Your task to perform on an android device: toggle data saver in the chrome app Image 0: 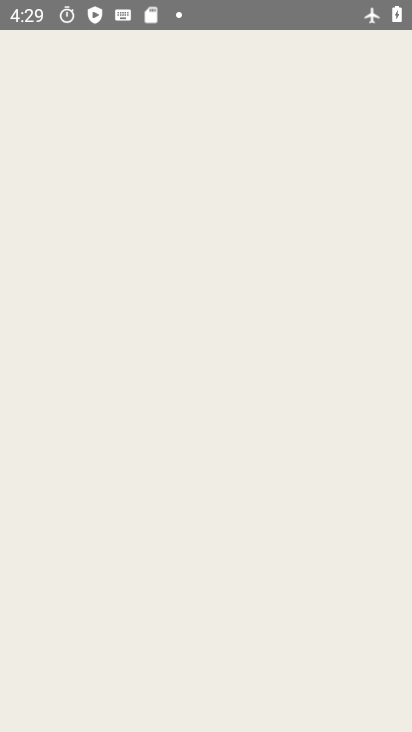
Step 0: press home button
Your task to perform on an android device: toggle data saver in the chrome app Image 1: 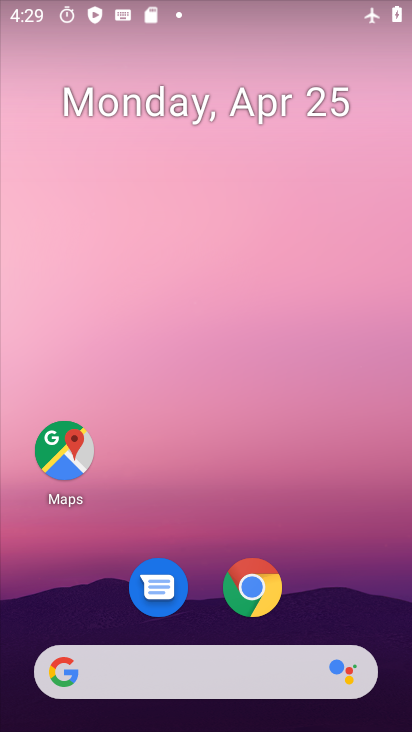
Step 1: drag from (323, 443) to (293, 147)
Your task to perform on an android device: toggle data saver in the chrome app Image 2: 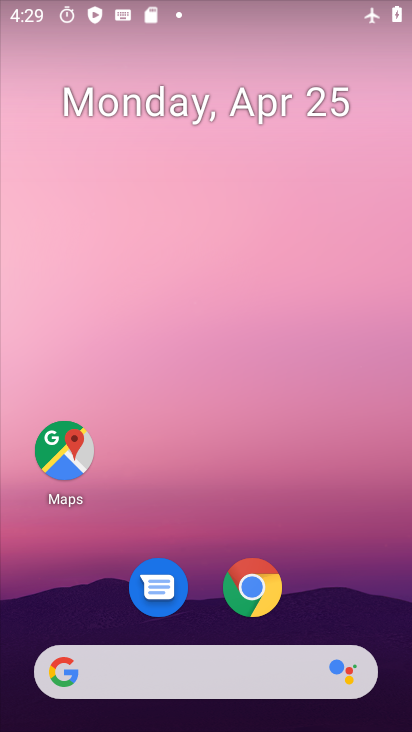
Step 2: drag from (340, 397) to (364, 155)
Your task to perform on an android device: toggle data saver in the chrome app Image 3: 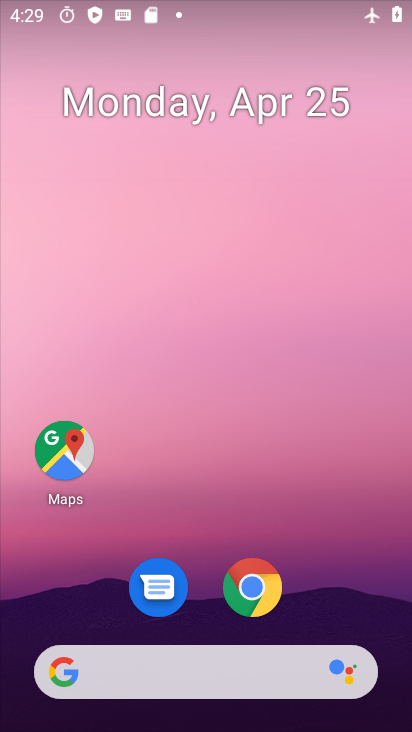
Step 3: drag from (353, 582) to (357, 106)
Your task to perform on an android device: toggle data saver in the chrome app Image 4: 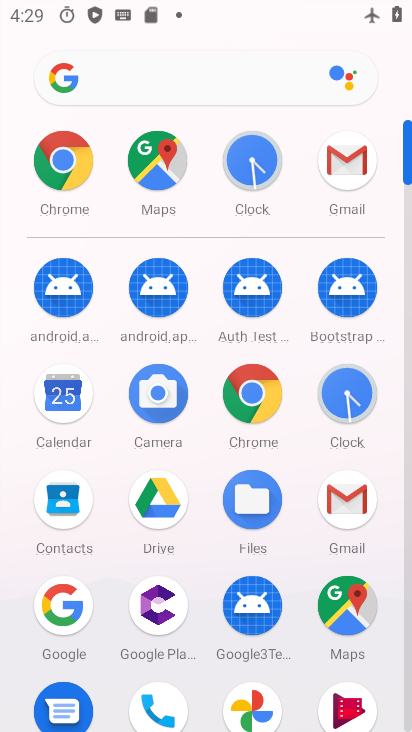
Step 4: click (255, 407)
Your task to perform on an android device: toggle data saver in the chrome app Image 5: 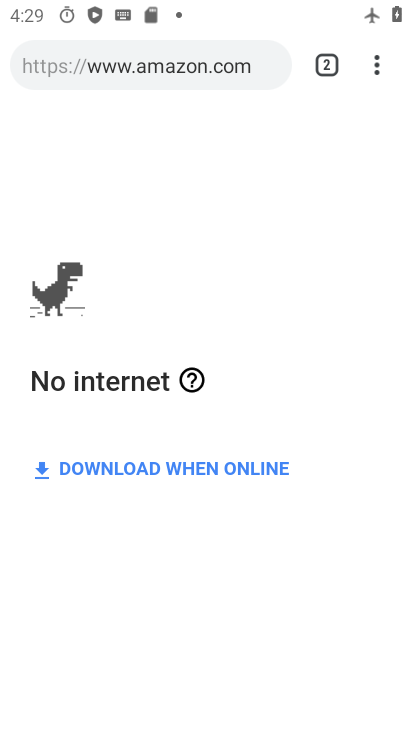
Step 5: click (382, 60)
Your task to perform on an android device: toggle data saver in the chrome app Image 6: 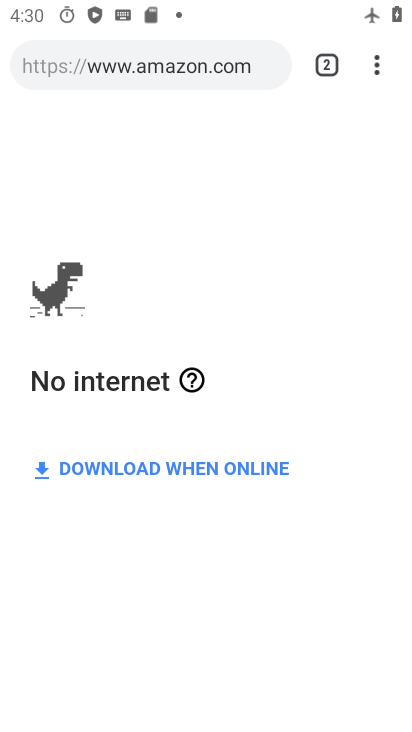
Step 6: drag from (378, 47) to (213, 641)
Your task to perform on an android device: toggle data saver in the chrome app Image 7: 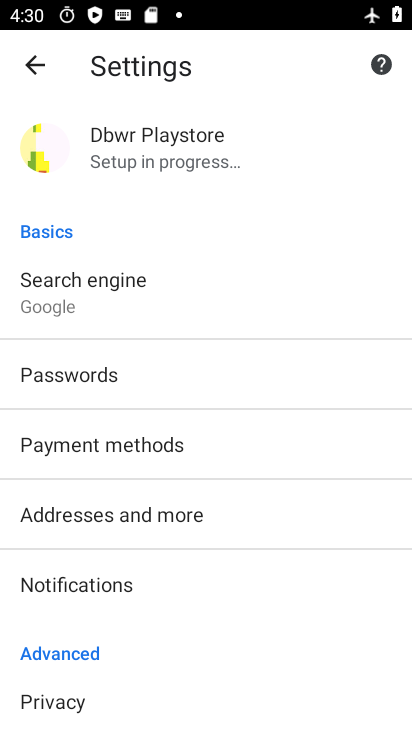
Step 7: drag from (234, 628) to (292, 213)
Your task to perform on an android device: toggle data saver in the chrome app Image 8: 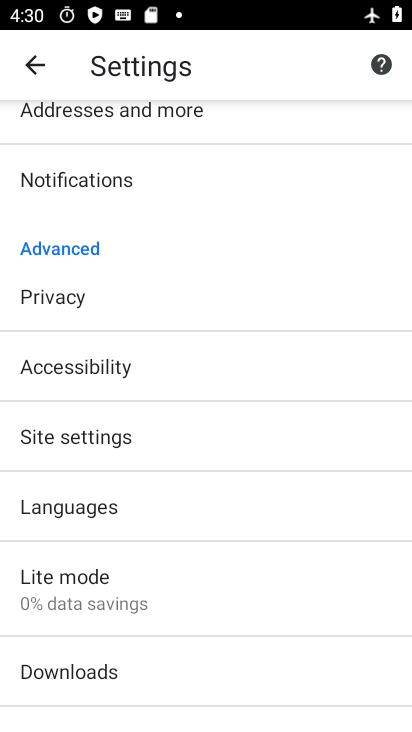
Step 8: click (162, 584)
Your task to perform on an android device: toggle data saver in the chrome app Image 9: 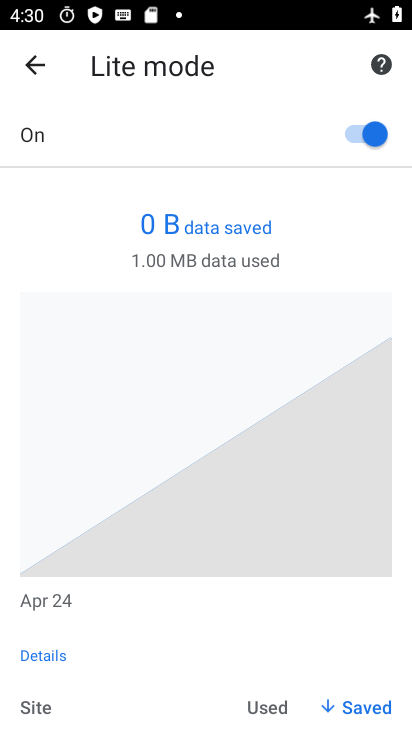
Step 9: click (362, 141)
Your task to perform on an android device: toggle data saver in the chrome app Image 10: 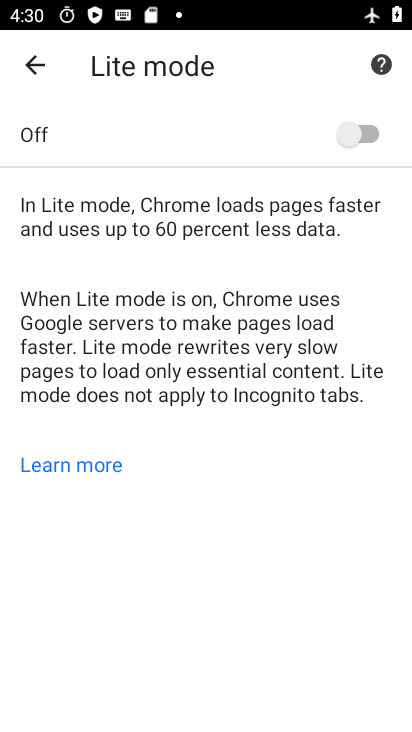
Step 10: task complete